Your task to perform on an android device: turn notification dots off Image 0: 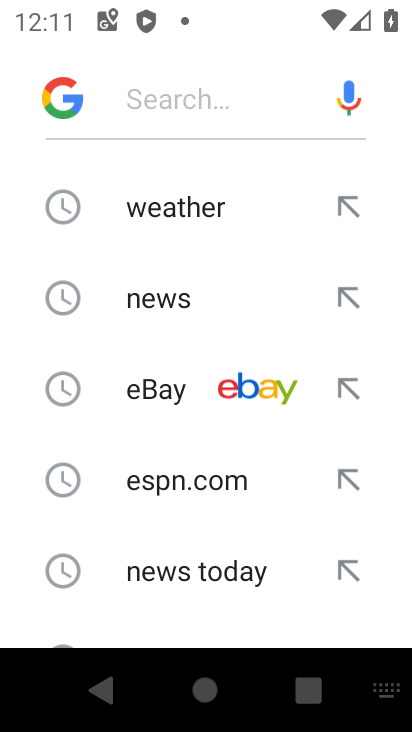
Step 0: press home button
Your task to perform on an android device: turn notification dots off Image 1: 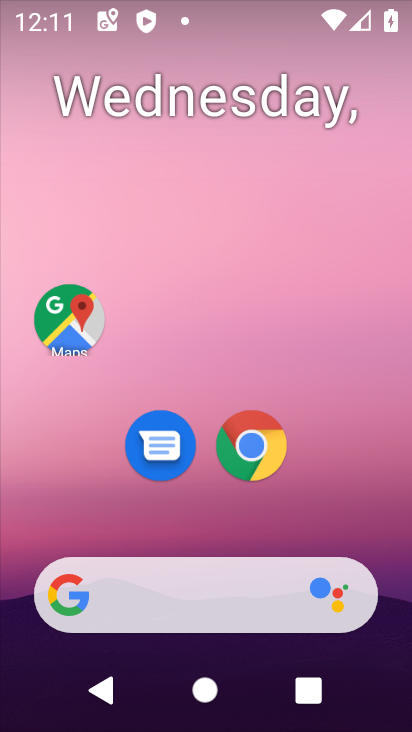
Step 1: drag from (311, 528) to (330, 78)
Your task to perform on an android device: turn notification dots off Image 2: 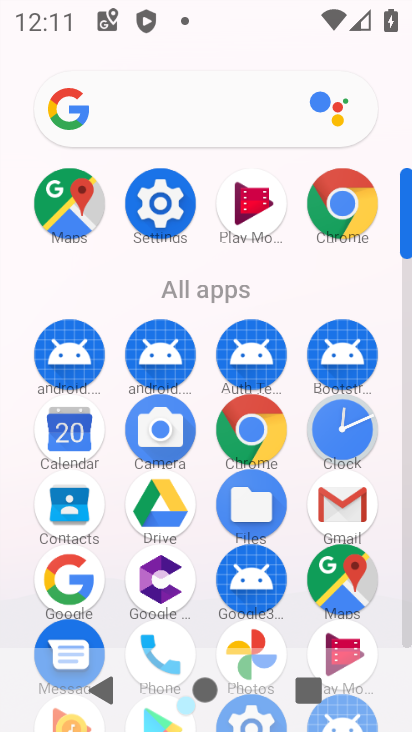
Step 2: drag from (291, 611) to (317, 275)
Your task to perform on an android device: turn notification dots off Image 3: 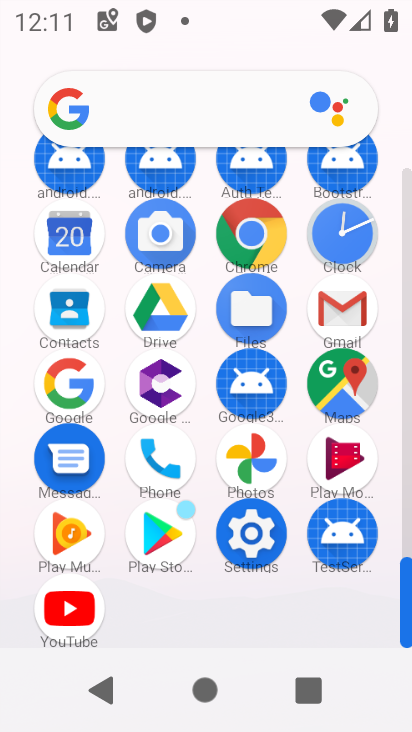
Step 3: click (247, 545)
Your task to perform on an android device: turn notification dots off Image 4: 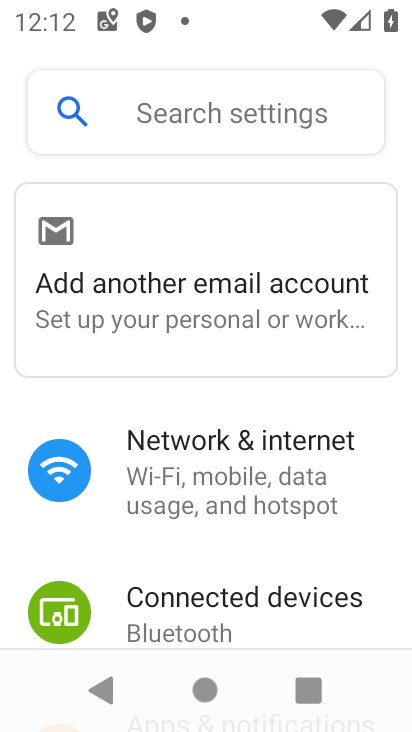
Step 4: drag from (278, 507) to (279, 23)
Your task to perform on an android device: turn notification dots off Image 5: 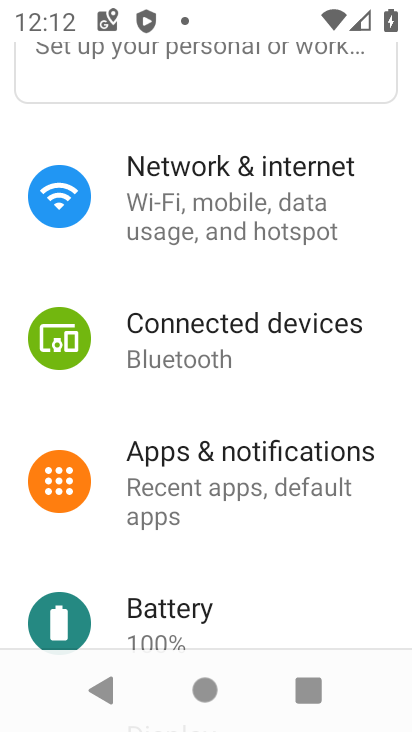
Step 5: click (291, 473)
Your task to perform on an android device: turn notification dots off Image 6: 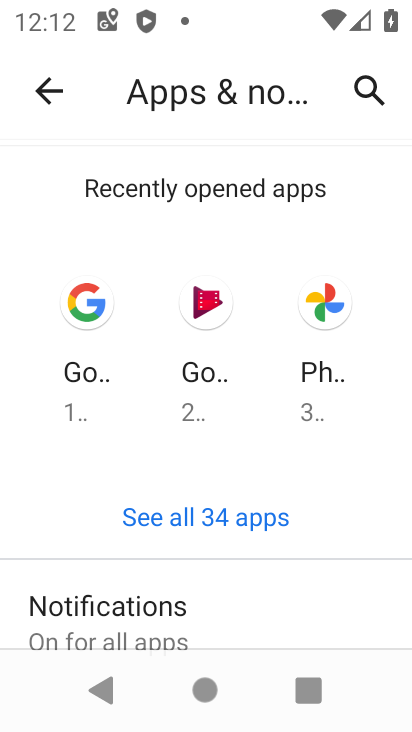
Step 6: drag from (166, 613) to (253, 113)
Your task to perform on an android device: turn notification dots off Image 7: 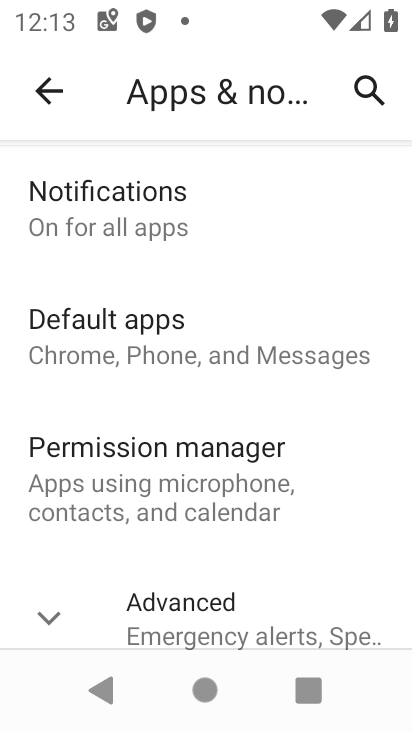
Step 7: drag from (282, 509) to (275, 235)
Your task to perform on an android device: turn notification dots off Image 8: 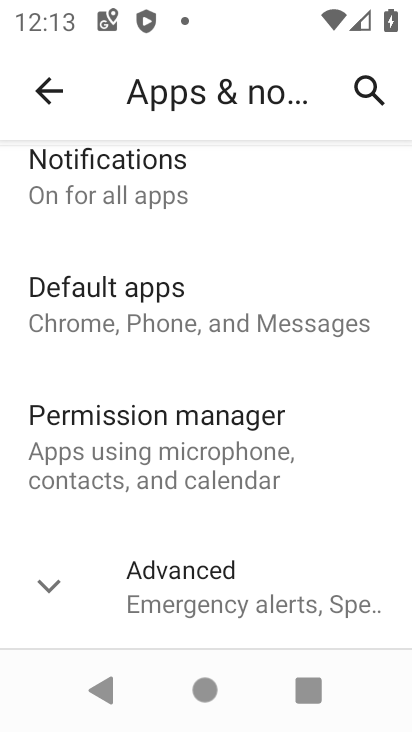
Step 8: click (159, 171)
Your task to perform on an android device: turn notification dots off Image 9: 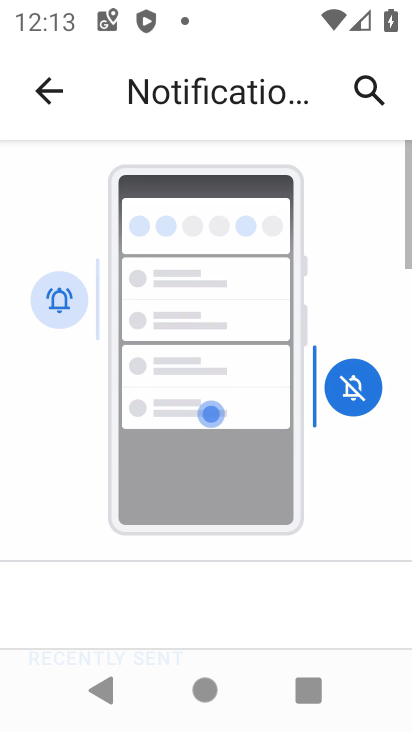
Step 9: drag from (255, 517) to (276, 69)
Your task to perform on an android device: turn notification dots off Image 10: 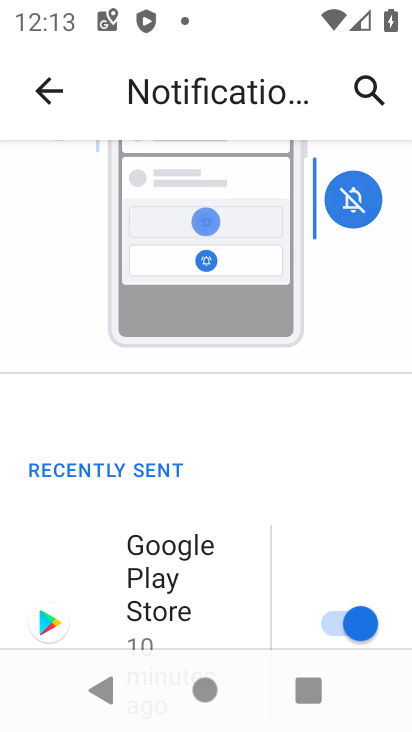
Step 10: drag from (285, 563) to (309, 80)
Your task to perform on an android device: turn notification dots off Image 11: 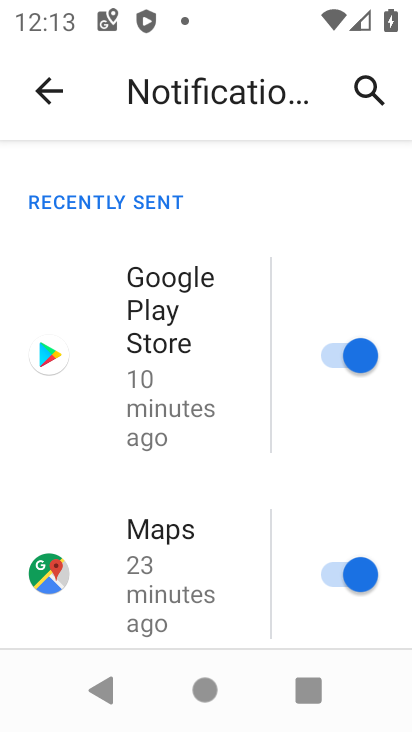
Step 11: drag from (236, 547) to (267, 74)
Your task to perform on an android device: turn notification dots off Image 12: 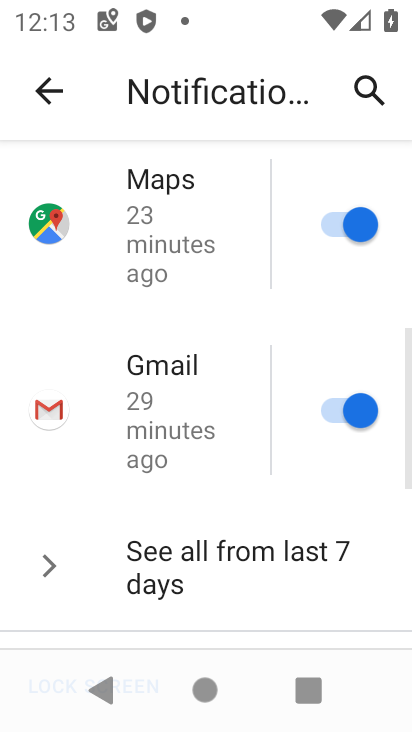
Step 12: drag from (220, 601) to (254, 131)
Your task to perform on an android device: turn notification dots off Image 13: 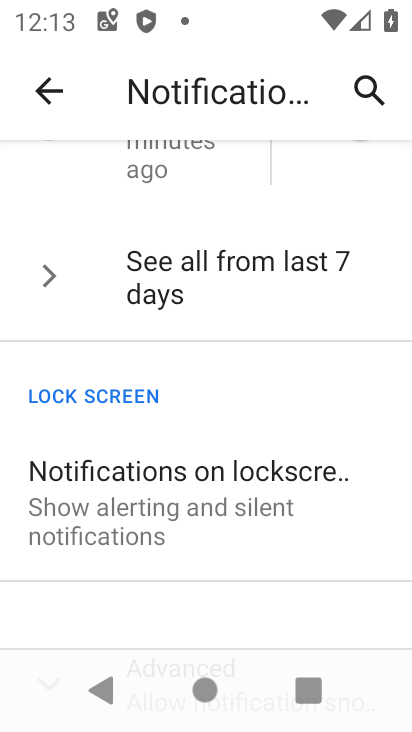
Step 13: drag from (240, 523) to (284, 137)
Your task to perform on an android device: turn notification dots off Image 14: 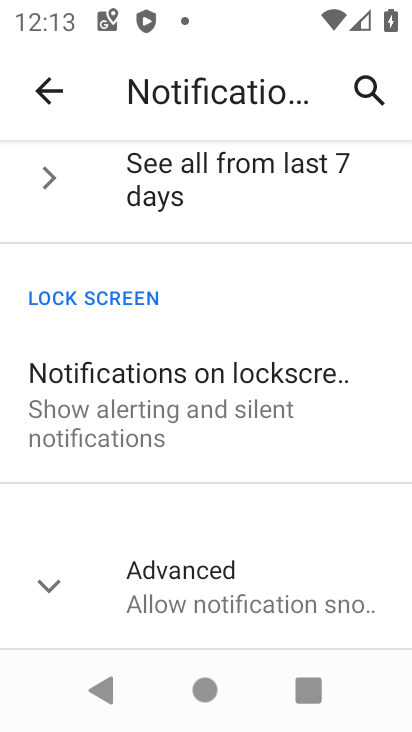
Step 14: drag from (212, 529) to (218, 213)
Your task to perform on an android device: turn notification dots off Image 15: 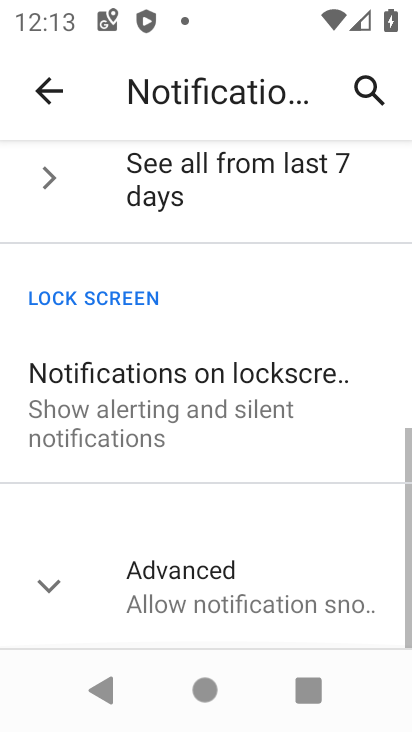
Step 15: click (225, 596)
Your task to perform on an android device: turn notification dots off Image 16: 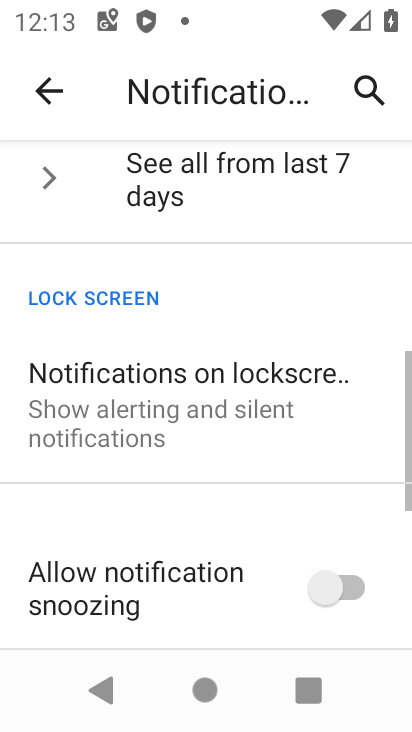
Step 16: drag from (239, 567) to (235, 150)
Your task to perform on an android device: turn notification dots off Image 17: 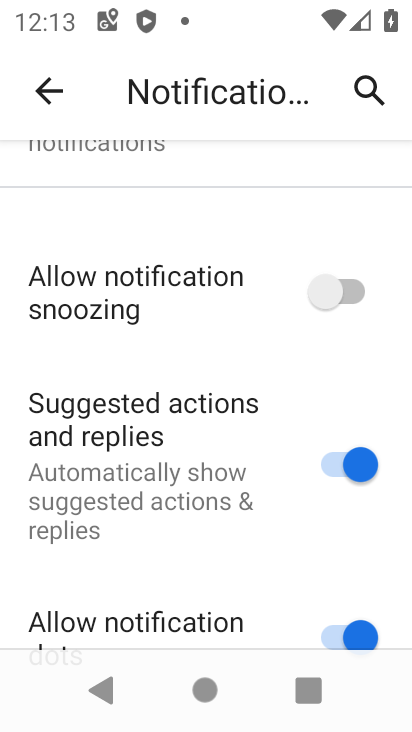
Step 17: drag from (248, 526) to (266, 151)
Your task to perform on an android device: turn notification dots off Image 18: 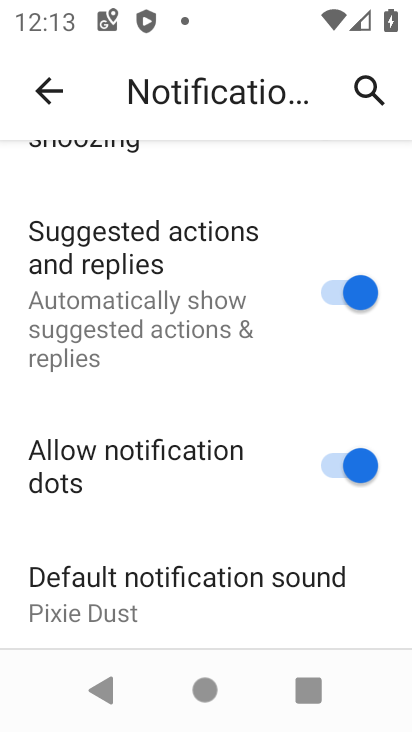
Step 18: click (342, 464)
Your task to perform on an android device: turn notification dots off Image 19: 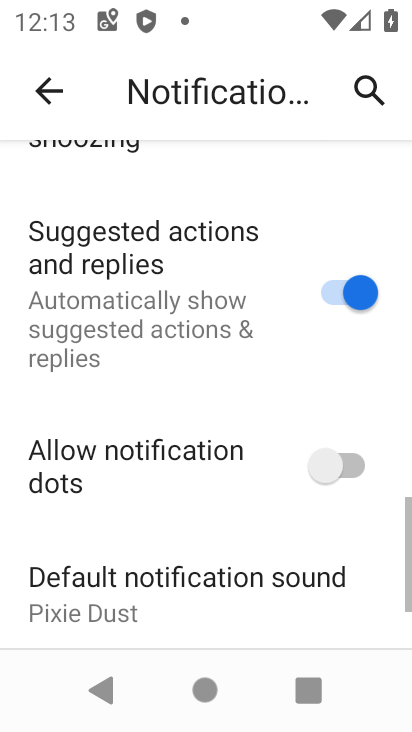
Step 19: task complete